Your task to perform on an android device: toggle notifications settings in the gmail app Image 0: 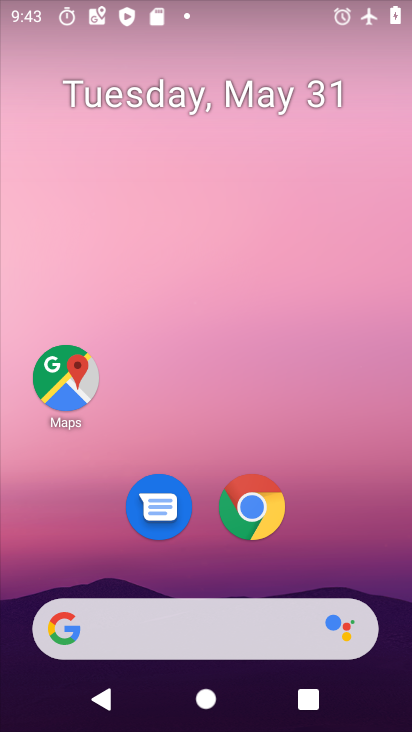
Step 0: drag from (365, 587) to (365, 11)
Your task to perform on an android device: toggle notifications settings in the gmail app Image 1: 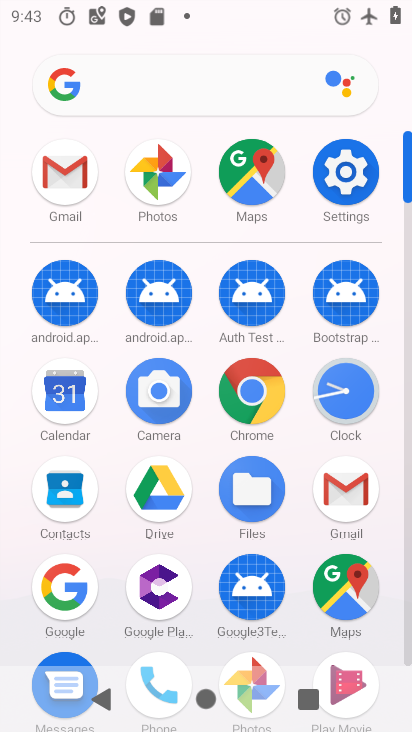
Step 1: click (349, 492)
Your task to perform on an android device: toggle notifications settings in the gmail app Image 2: 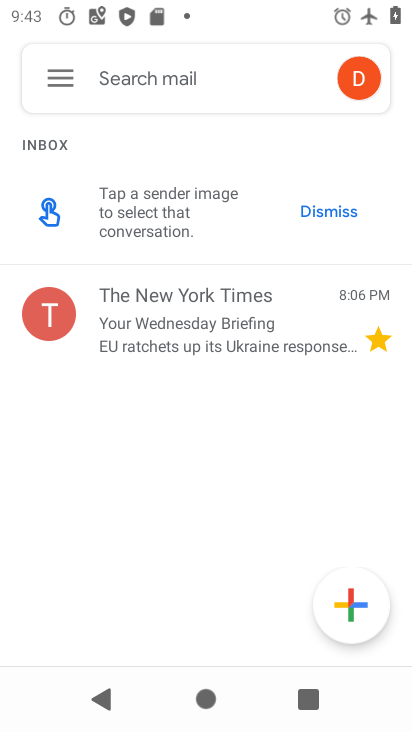
Step 2: click (63, 79)
Your task to perform on an android device: toggle notifications settings in the gmail app Image 3: 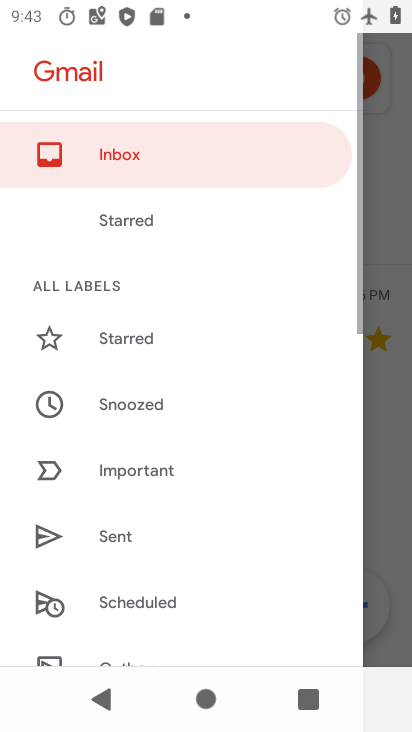
Step 3: drag from (181, 588) to (172, 161)
Your task to perform on an android device: toggle notifications settings in the gmail app Image 4: 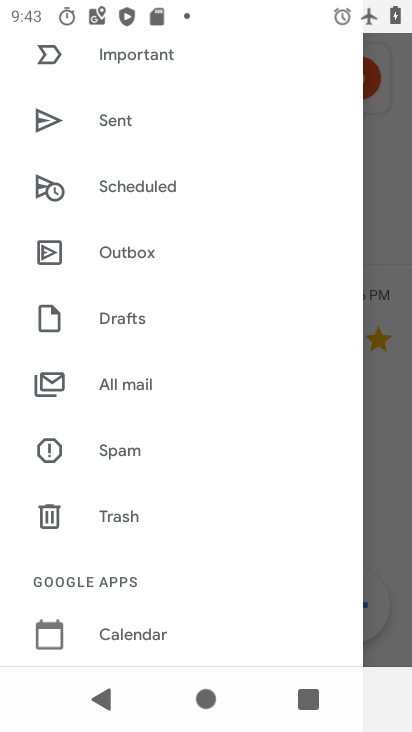
Step 4: drag from (168, 557) to (166, 99)
Your task to perform on an android device: toggle notifications settings in the gmail app Image 5: 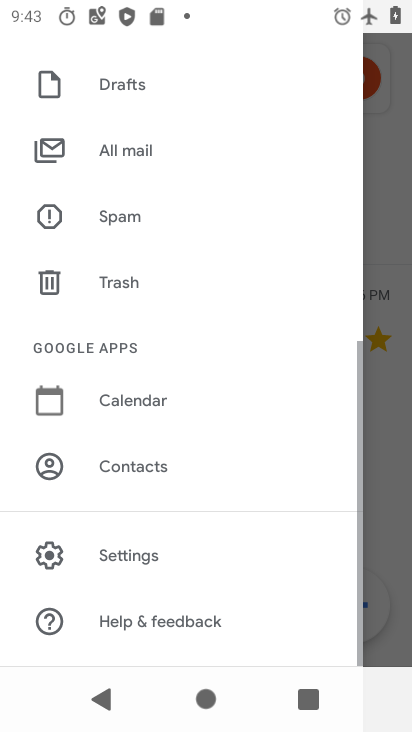
Step 5: click (110, 554)
Your task to perform on an android device: toggle notifications settings in the gmail app Image 6: 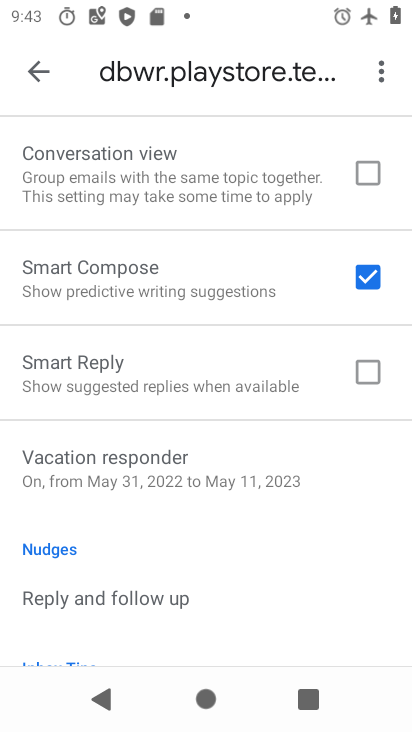
Step 6: click (35, 82)
Your task to perform on an android device: toggle notifications settings in the gmail app Image 7: 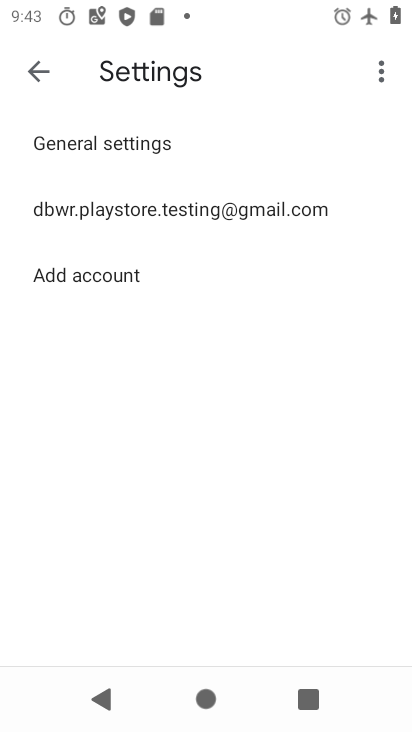
Step 7: click (75, 131)
Your task to perform on an android device: toggle notifications settings in the gmail app Image 8: 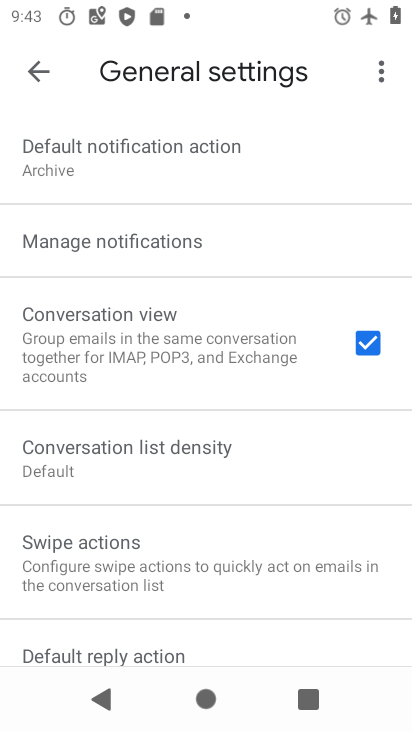
Step 8: click (71, 241)
Your task to perform on an android device: toggle notifications settings in the gmail app Image 9: 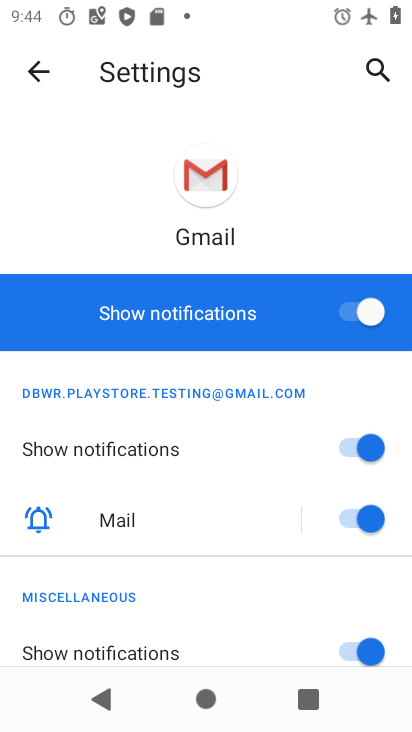
Step 9: click (363, 307)
Your task to perform on an android device: toggle notifications settings in the gmail app Image 10: 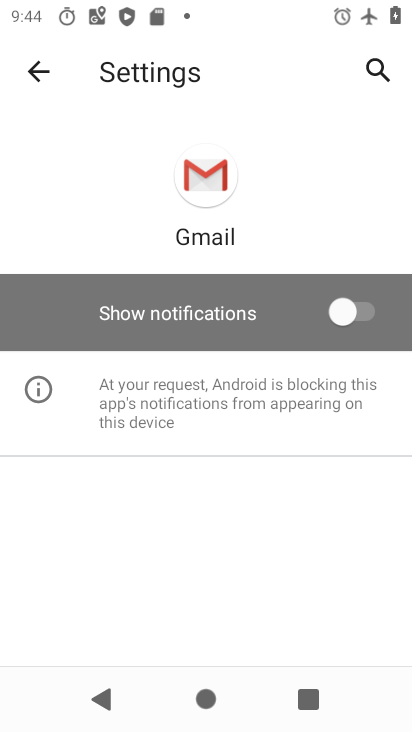
Step 10: task complete